Your task to perform on an android device: clear history in the chrome app Image 0: 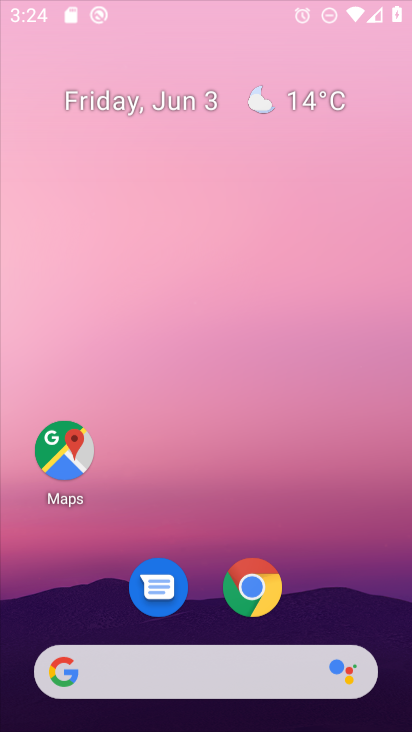
Step 0: drag from (235, 716) to (255, 89)
Your task to perform on an android device: clear history in the chrome app Image 1: 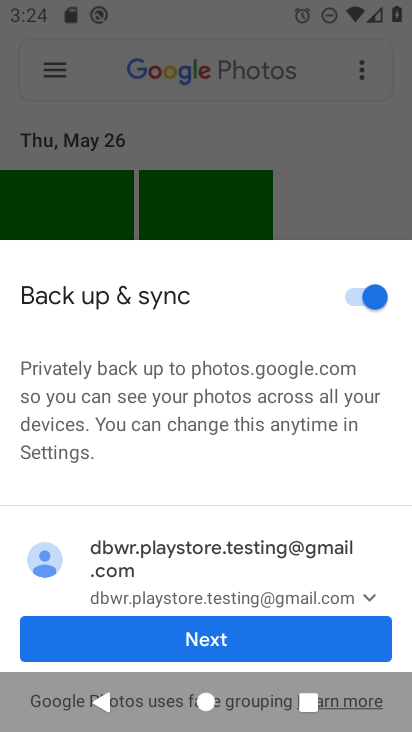
Step 1: press home button
Your task to perform on an android device: clear history in the chrome app Image 2: 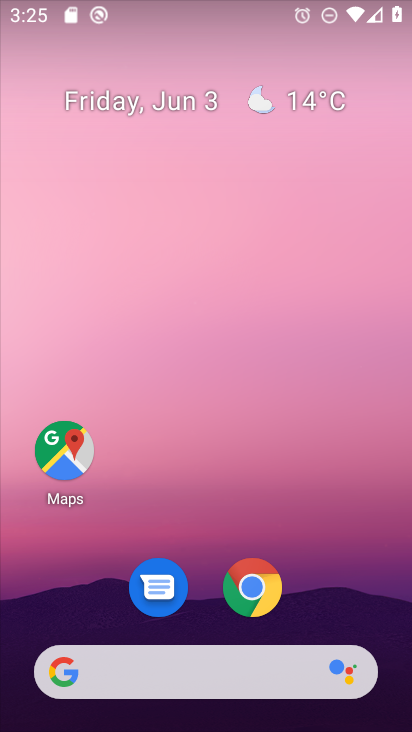
Step 2: click (249, 583)
Your task to perform on an android device: clear history in the chrome app Image 3: 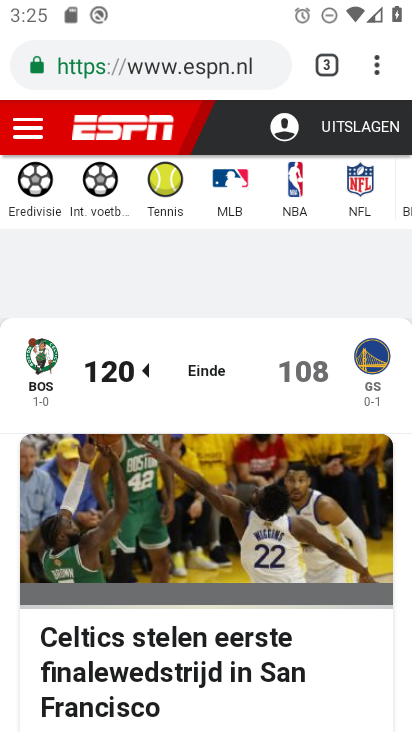
Step 3: click (376, 72)
Your task to perform on an android device: clear history in the chrome app Image 4: 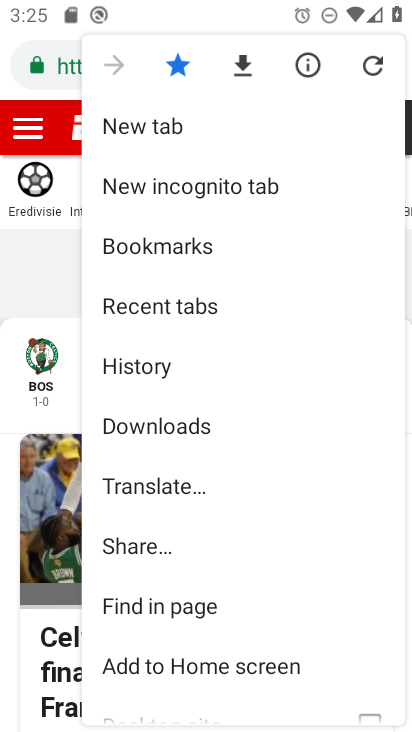
Step 4: click (140, 366)
Your task to perform on an android device: clear history in the chrome app Image 5: 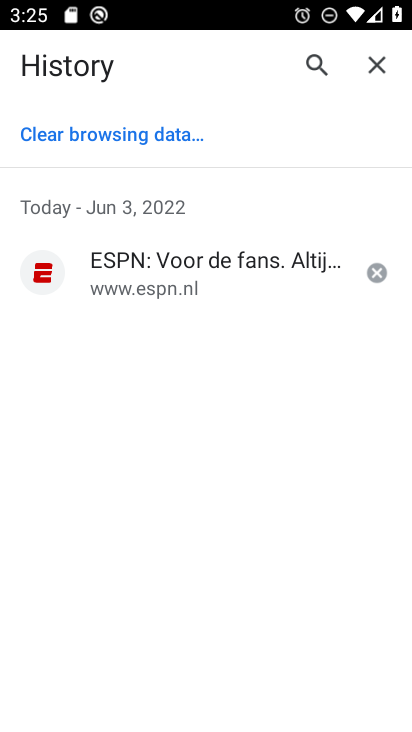
Step 5: click (99, 137)
Your task to perform on an android device: clear history in the chrome app Image 6: 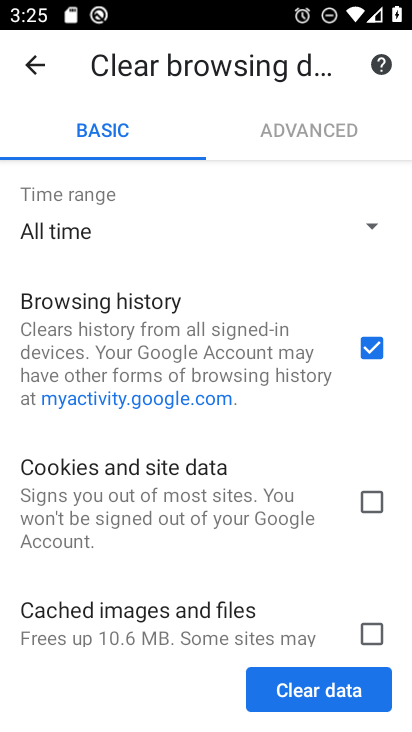
Step 6: click (323, 688)
Your task to perform on an android device: clear history in the chrome app Image 7: 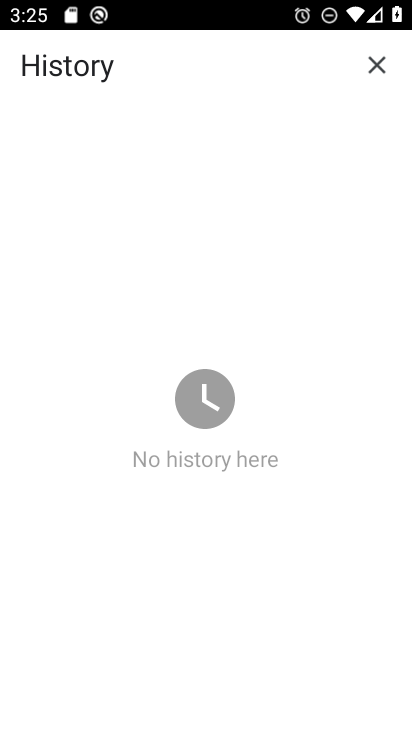
Step 7: task complete